Your task to perform on an android device: Open Youtube and go to the subscriptions tab Image 0: 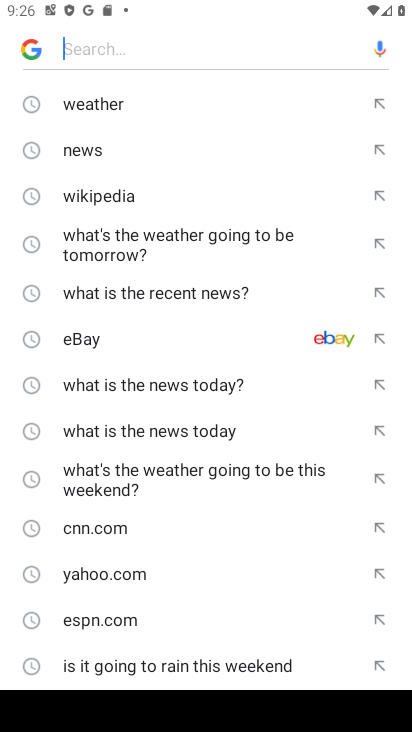
Step 0: press home button
Your task to perform on an android device: Open Youtube and go to the subscriptions tab Image 1: 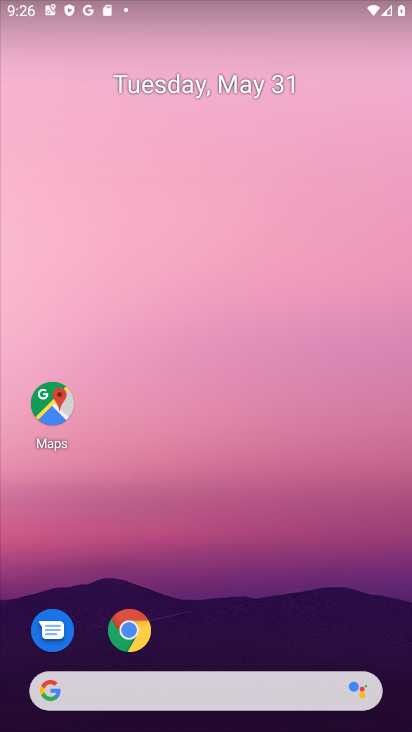
Step 1: drag from (143, 718) to (134, 102)
Your task to perform on an android device: Open Youtube and go to the subscriptions tab Image 2: 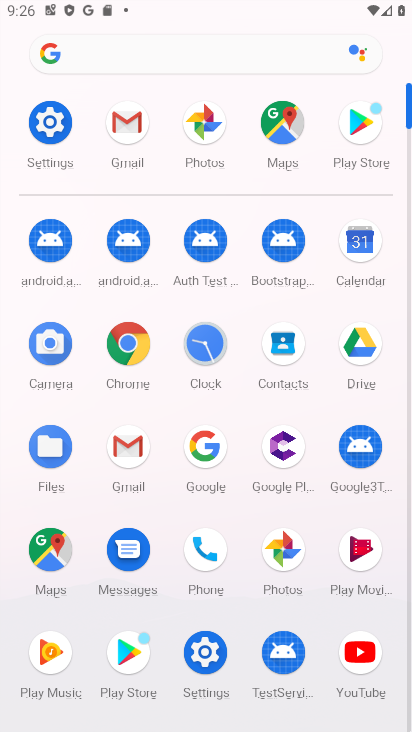
Step 2: click (348, 676)
Your task to perform on an android device: Open Youtube and go to the subscriptions tab Image 3: 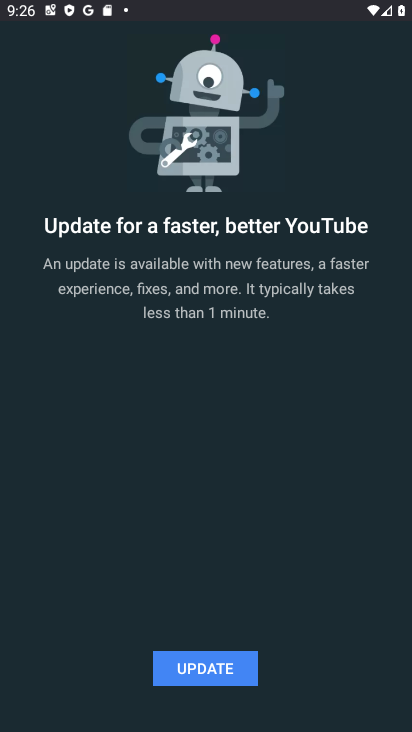
Step 3: drag from (201, 668) to (116, 668)
Your task to perform on an android device: Open Youtube and go to the subscriptions tab Image 4: 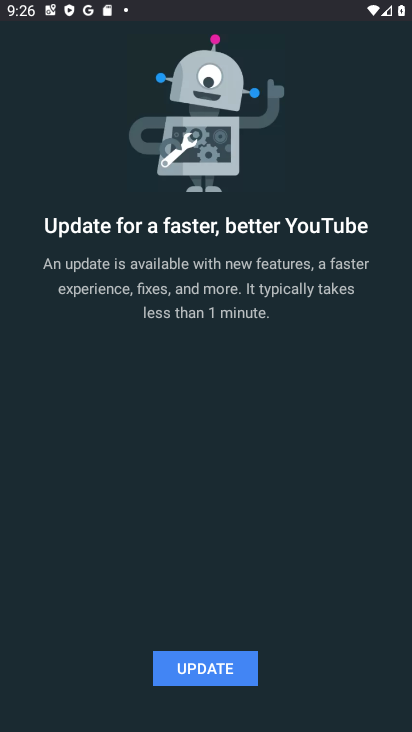
Step 4: click (209, 679)
Your task to perform on an android device: Open Youtube and go to the subscriptions tab Image 5: 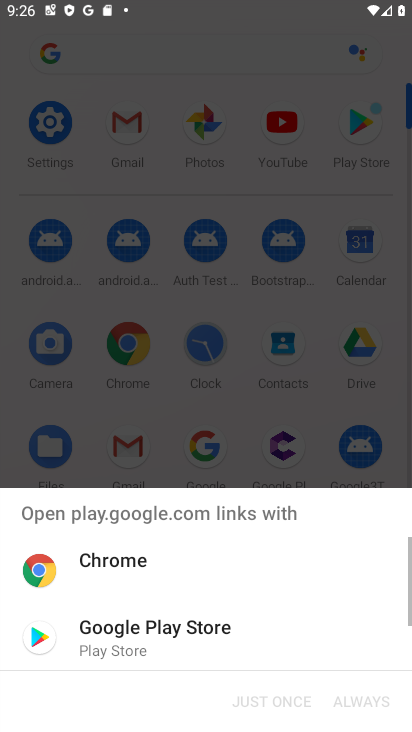
Step 5: click (164, 652)
Your task to perform on an android device: Open Youtube and go to the subscriptions tab Image 6: 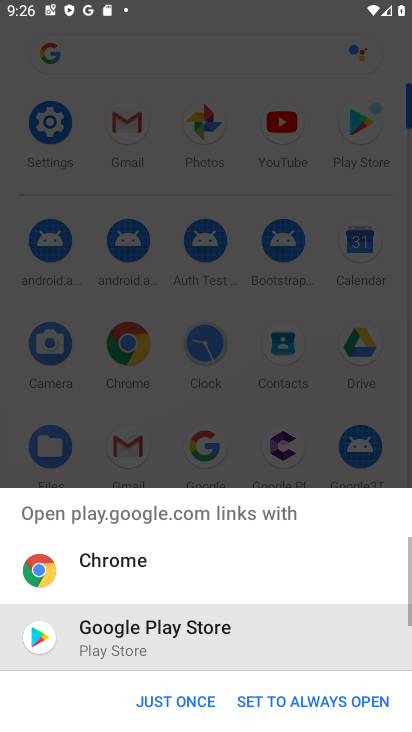
Step 6: click (164, 715)
Your task to perform on an android device: Open Youtube and go to the subscriptions tab Image 7: 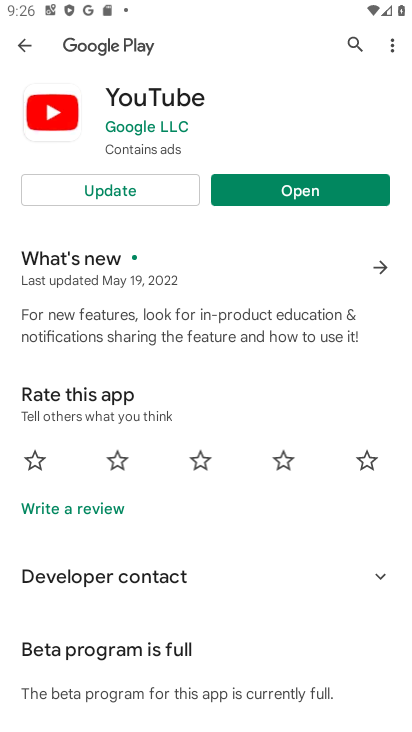
Step 7: click (73, 185)
Your task to perform on an android device: Open Youtube and go to the subscriptions tab Image 8: 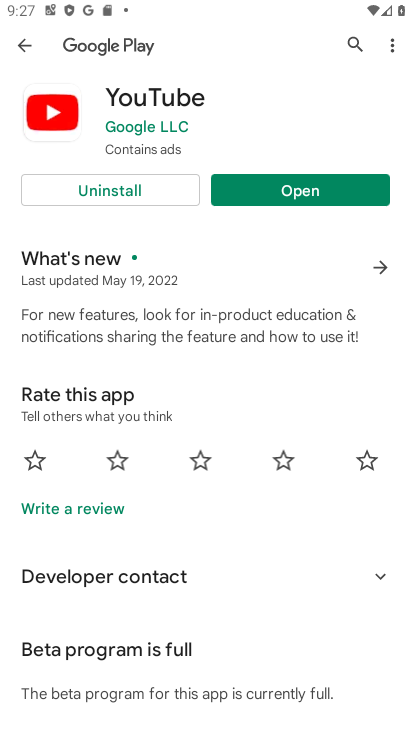
Step 8: click (265, 196)
Your task to perform on an android device: Open Youtube and go to the subscriptions tab Image 9: 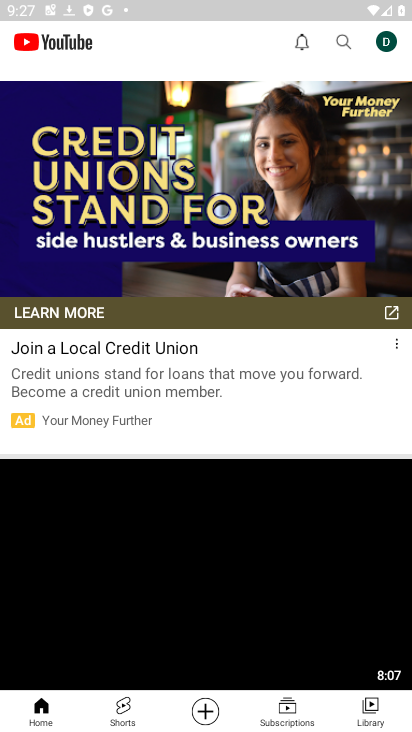
Step 9: click (289, 706)
Your task to perform on an android device: Open Youtube and go to the subscriptions tab Image 10: 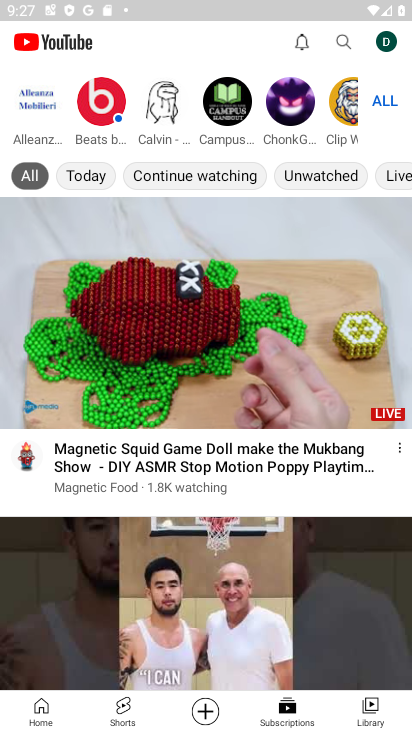
Step 10: task complete